Your task to perform on an android device: Add "macbook air" to the cart on walmart.com Image 0: 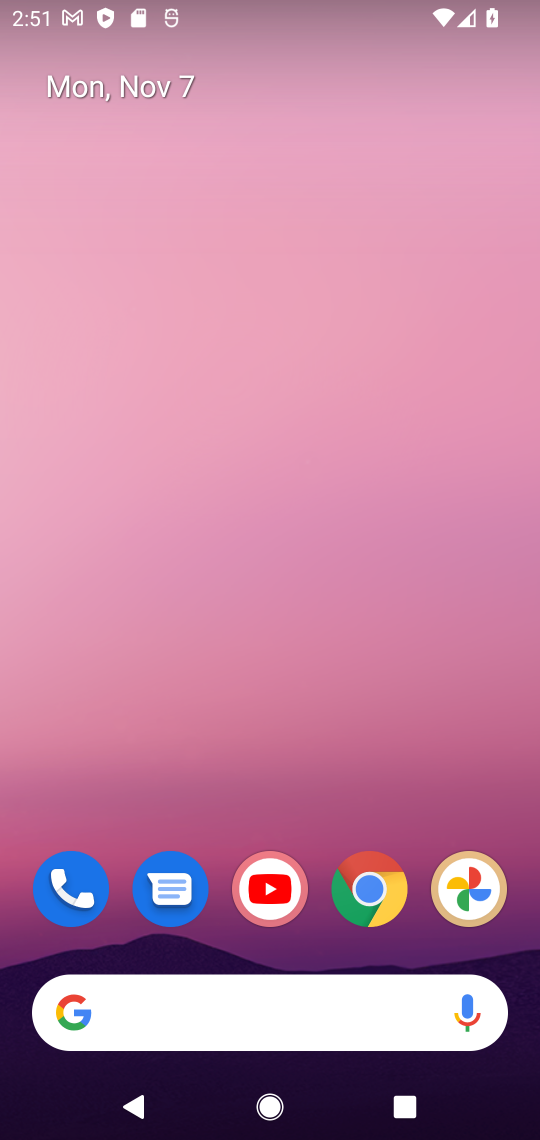
Step 0: click (364, 902)
Your task to perform on an android device: Add "macbook air" to the cart on walmart.com Image 1: 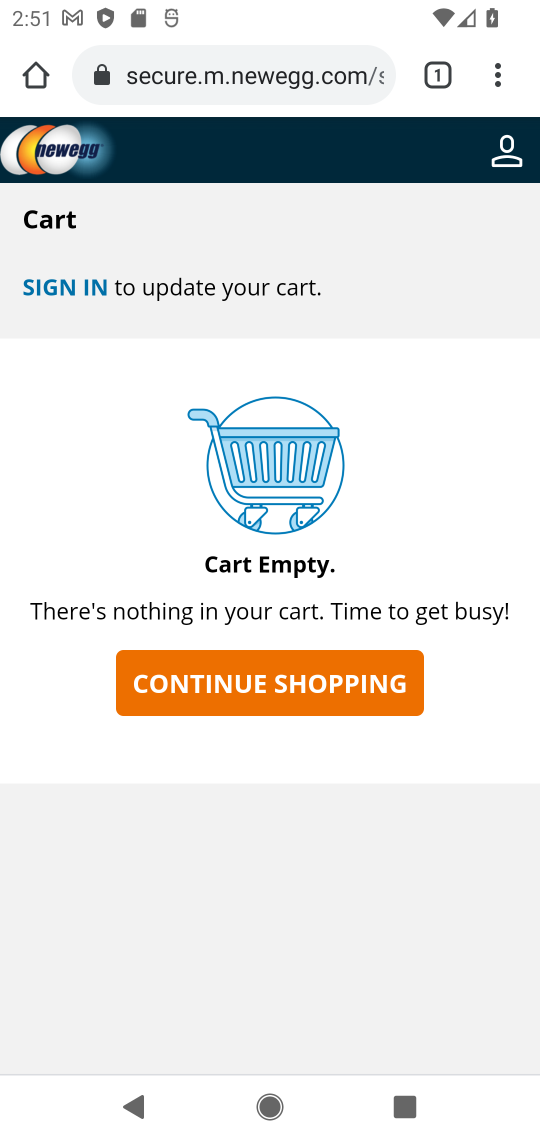
Step 1: click (268, 84)
Your task to perform on an android device: Add "macbook air" to the cart on walmart.com Image 2: 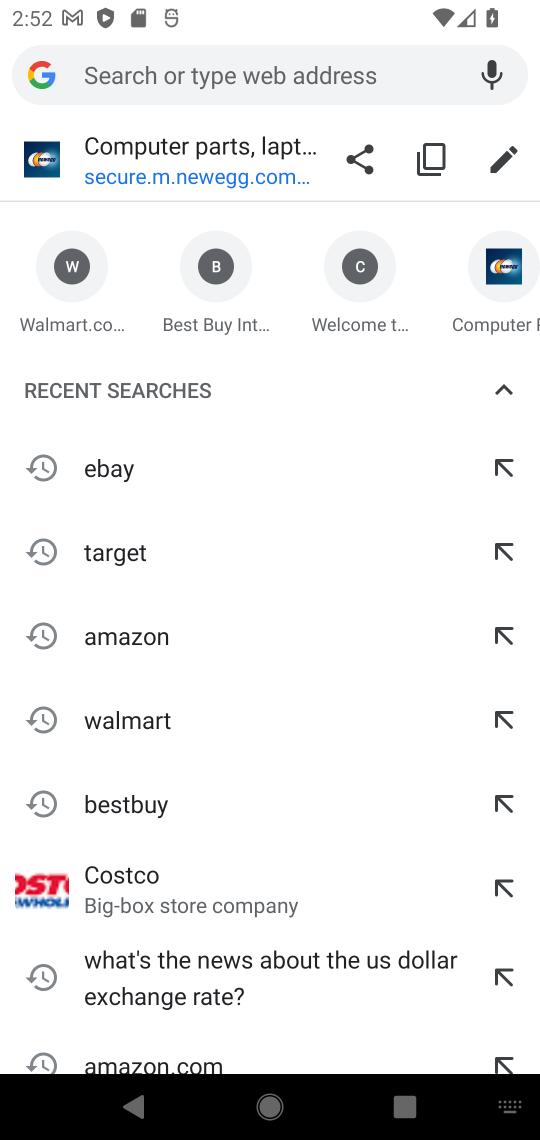
Step 2: type "walmart.com"
Your task to perform on an android device: Add "macbook air" to the cart on walmart.com Image 3: 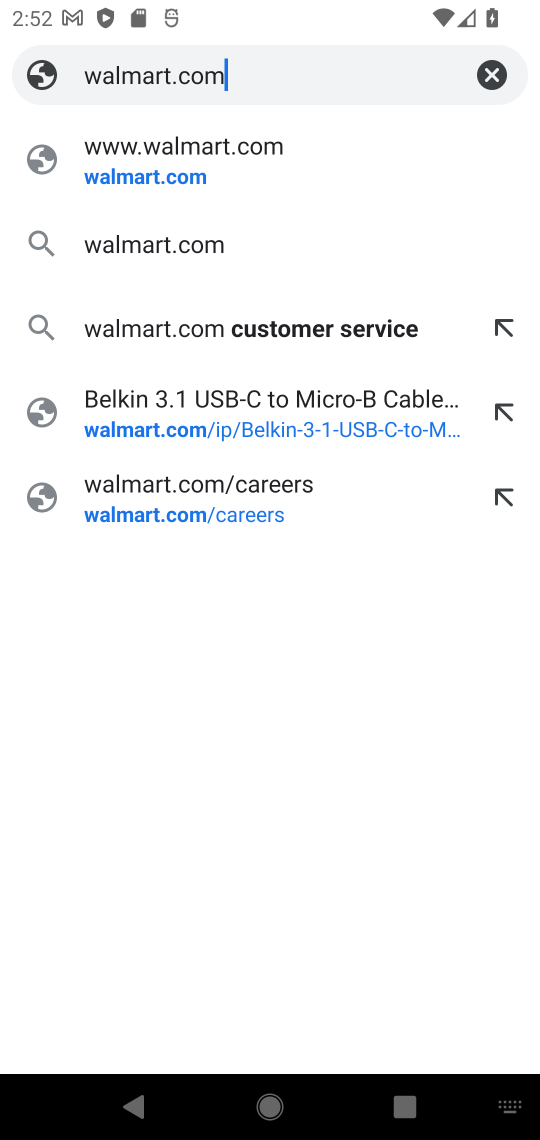
Step 3: click (184, 154)
Your task to perform on an android device: Add "macbook air" to the cart on walmart.com Image 4: 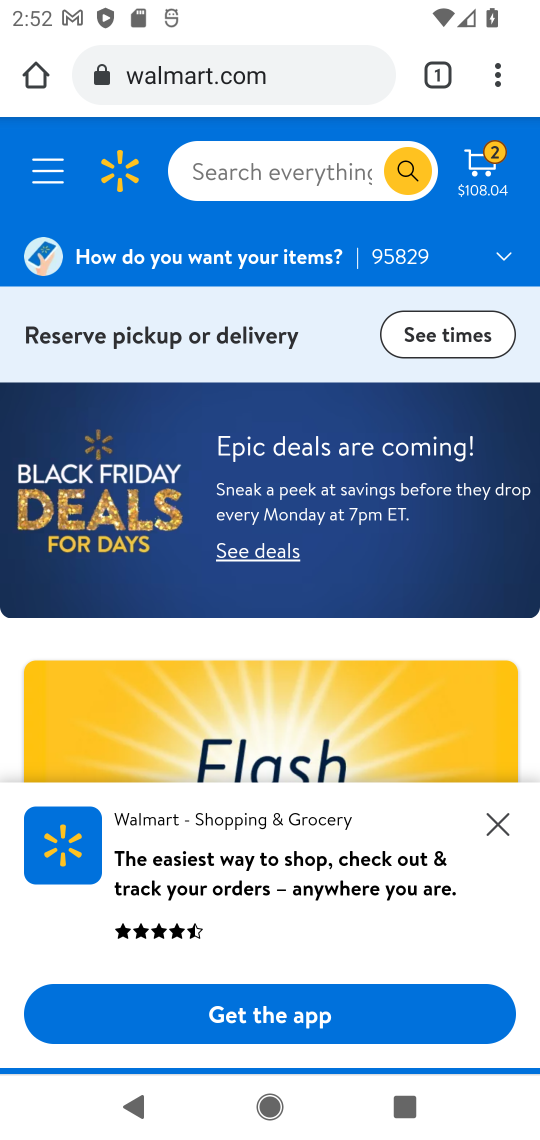
Step 4: click (310, 178)
Your task to perform on an android device: Add "macbook air" to the cart on walmart.com Image 5: 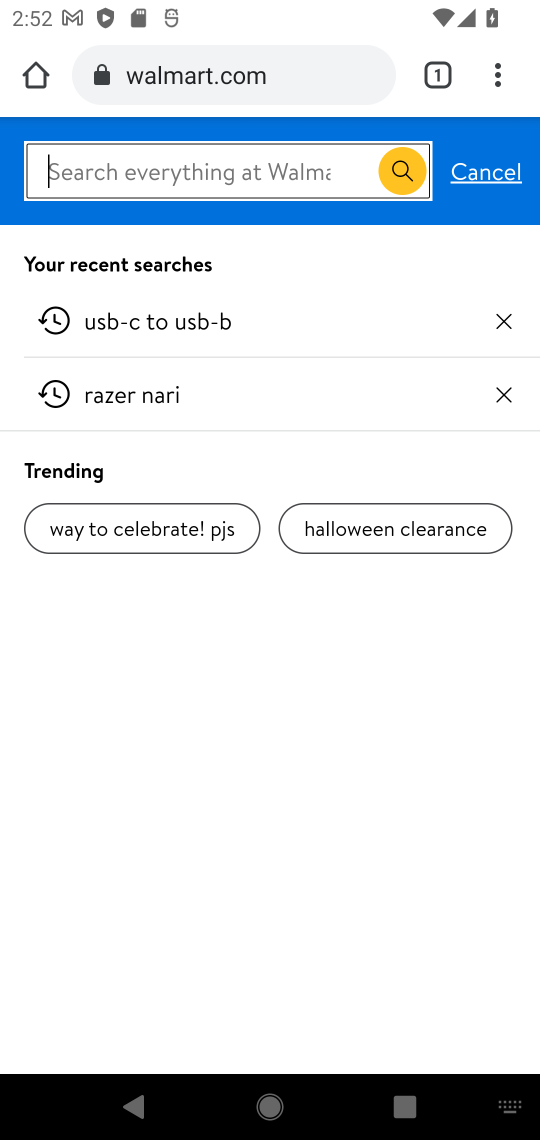
Step 5: type "macbook air"
Your task to perform on an android device: Add "macbook air" to the cart on walmart.com Image 6: 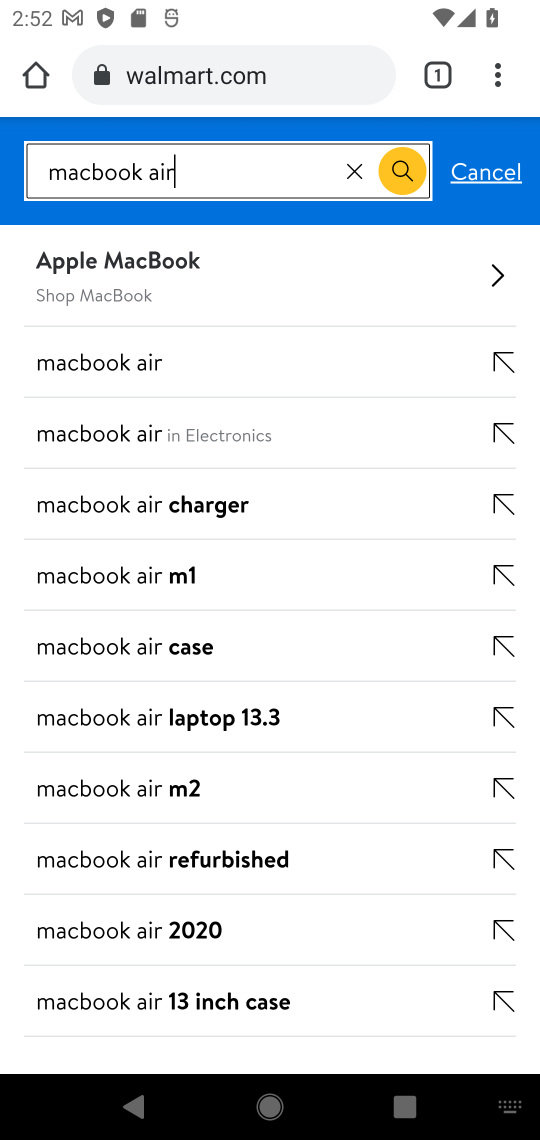
Step 6: click (281, 269)
Your task to perform on an android device: Add "macbook air" to the cart on walmart.com Image 7: 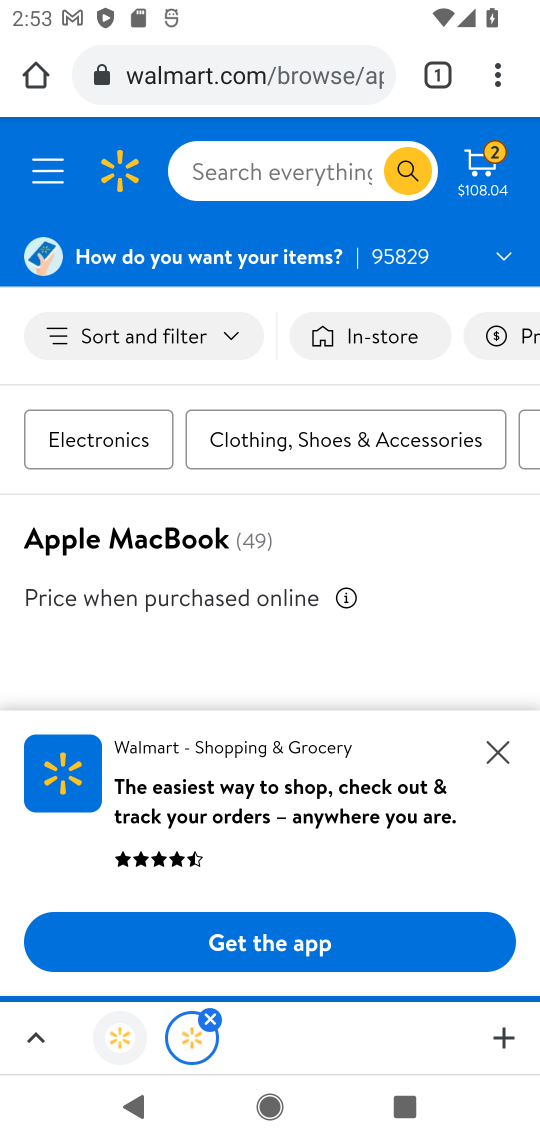
Step 7: click (505, 757)
Your task to perform on an android device: Add "macbook air" to the cart on walmart.com Image 8: 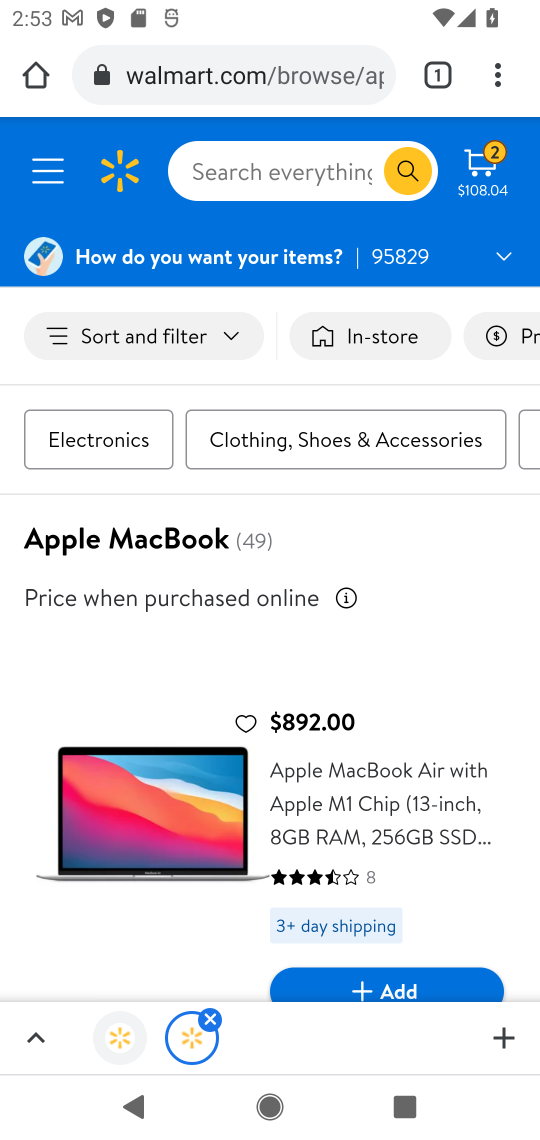
Step 8: click (412, 980)
Your task to perform on an android device: Add "macbook air" to the cart on walmart.com Image 9: 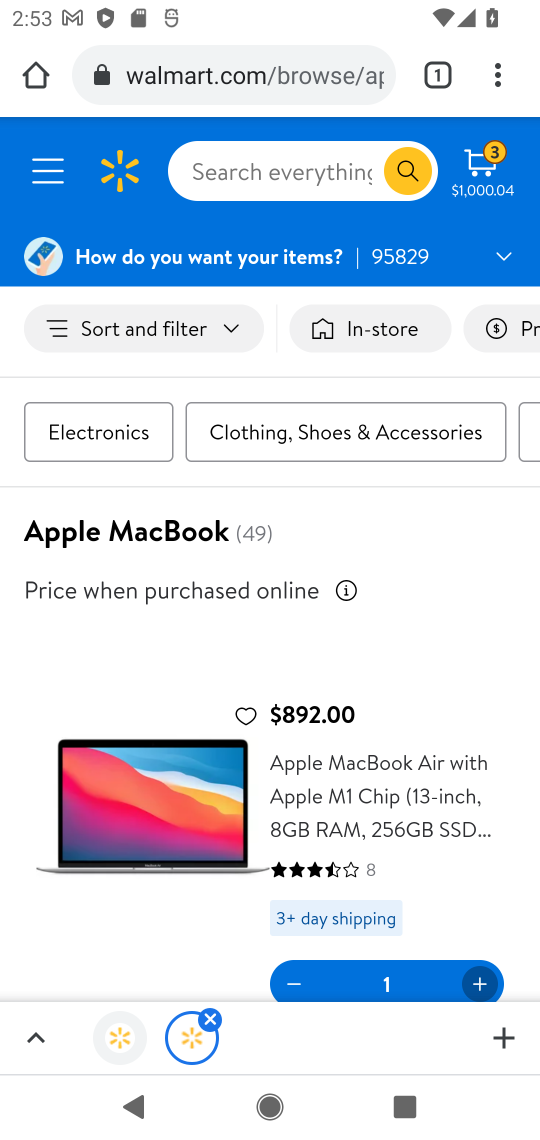
Step 9: click (490, 170)
Your task to perform on an android device: Add "macbook air" to the cart on walmart.com Image 10: 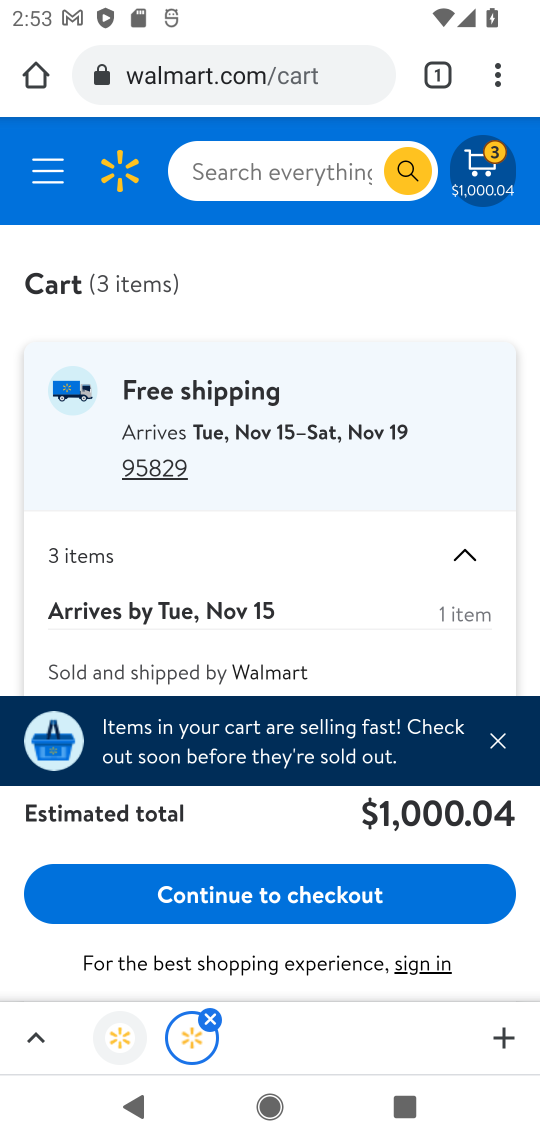
Step 10: task complete